Your task to perform on an android device: check battery use Image 0: 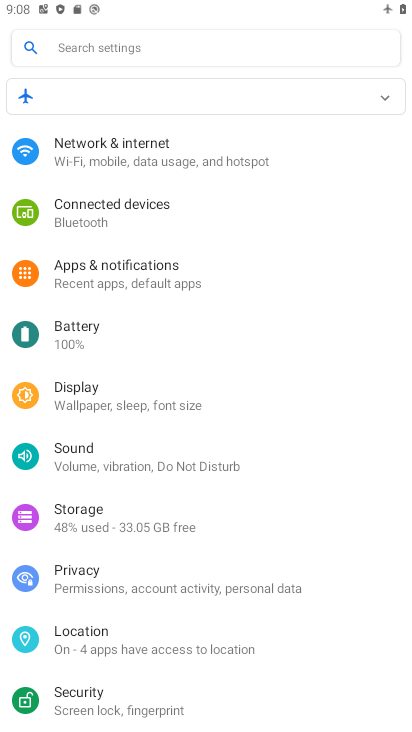
Step 0: click (108, 337)
Your task to perform on an android device: check battery use Image 1: 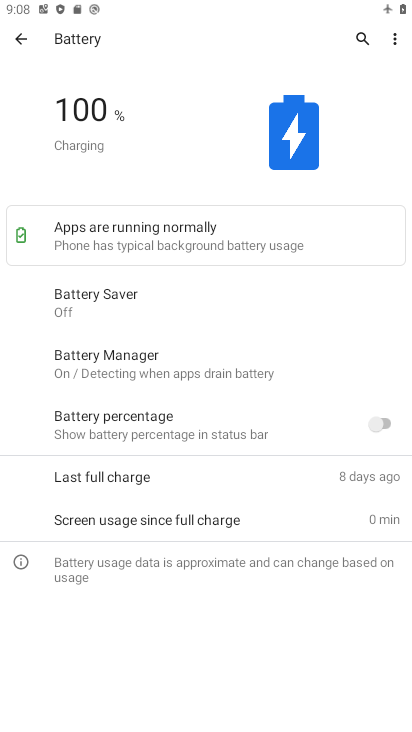
Step 1: click (394, 36)
Your task to perform on an android device: check battery use Image 2: 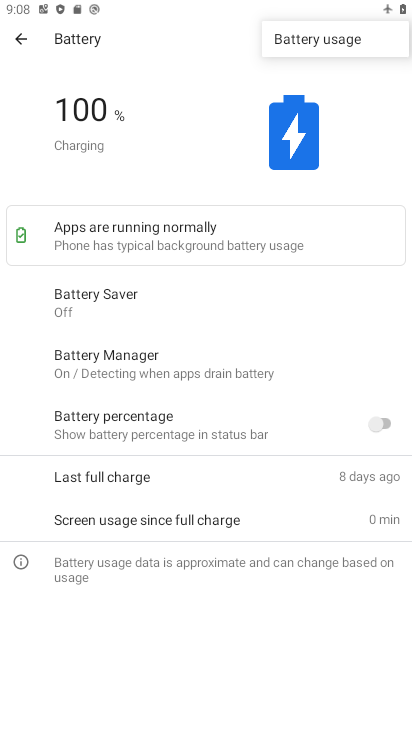
Step 2: click (328, 38)
Your task to perform on an android device: check battery use Image 3: 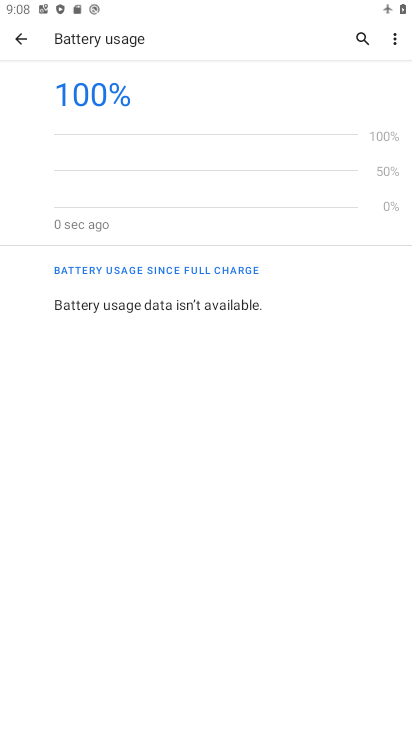
Step 3: task complete